Your task to perform on an android device: delete browsing data in the chrome app Image 0: 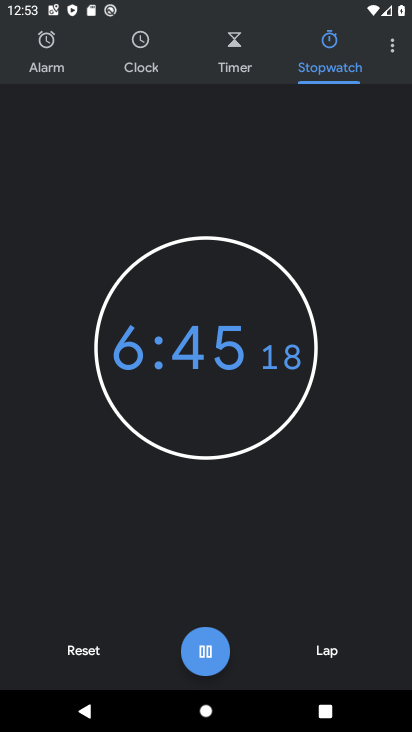
Step 0: press home button
Your task to perform on an android device: delete browsing data in the chrome app Image 1: 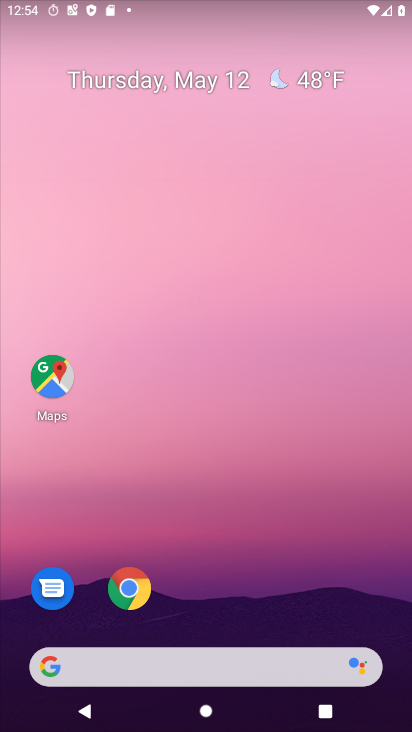
Step 1: click (134, 591)
Your task to perform on an android device: delete browsing data in the chrome app Image 2: 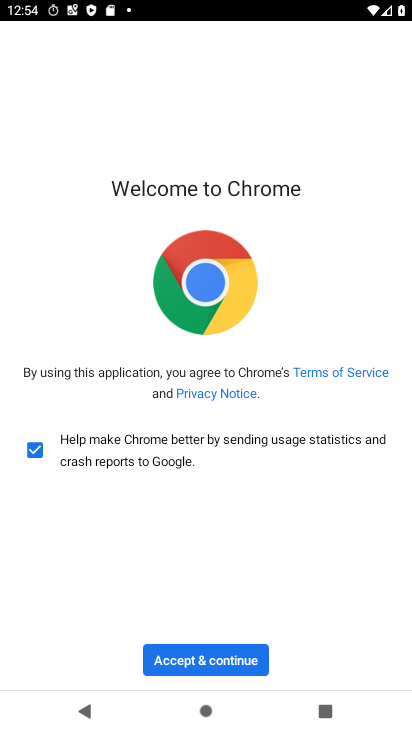
Step 2: click (208, 655)
Your task to perform on an android device: delete browsing data in the chrome app Image 3: 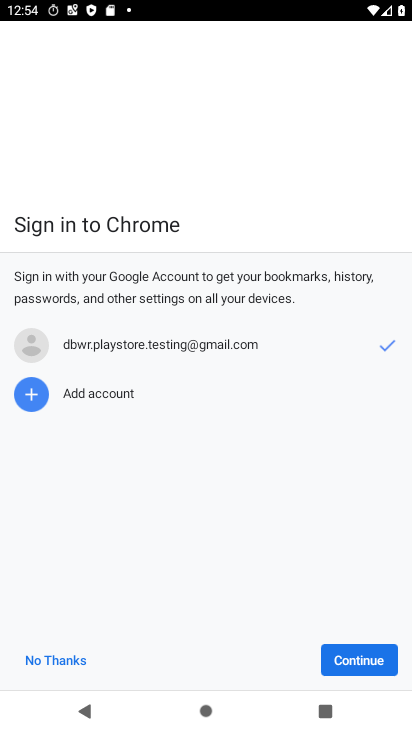
Step 3: click (346, 655)
Your task to perform on an android device: delete browsing data in the chrome app Image 4: 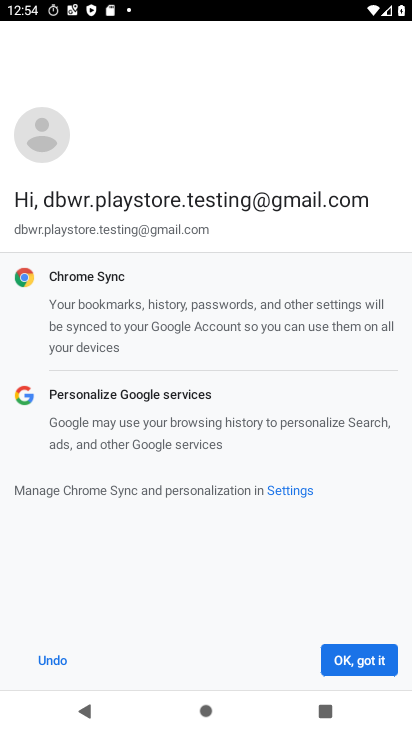
Step 4: click (346, 655)
Your task to perform on an android device: delete browsing data in the chrome app Image 5: 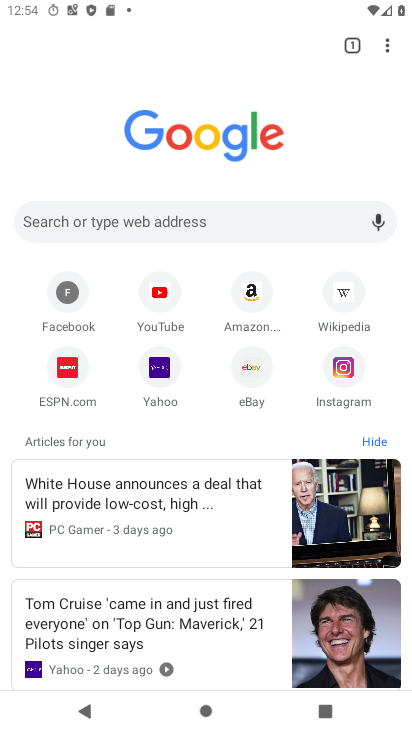
Step 5: click (382, 45)
Your task to perform on an android device: delete browsing data in the chrome app Image 6: 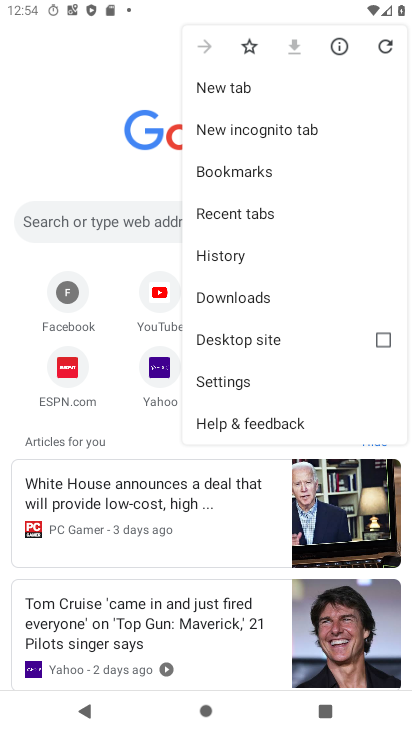
Step 6: click (257, 383)
Your task to perform on an android device: delete browsing data in the chrome app Image 7: 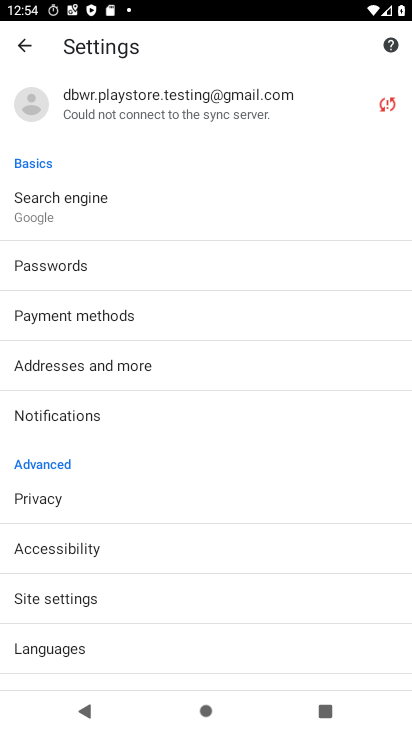
Step 7: click (89, 494)
Your task to perform on an android device: delete browsing data in the chrome app Image 8: 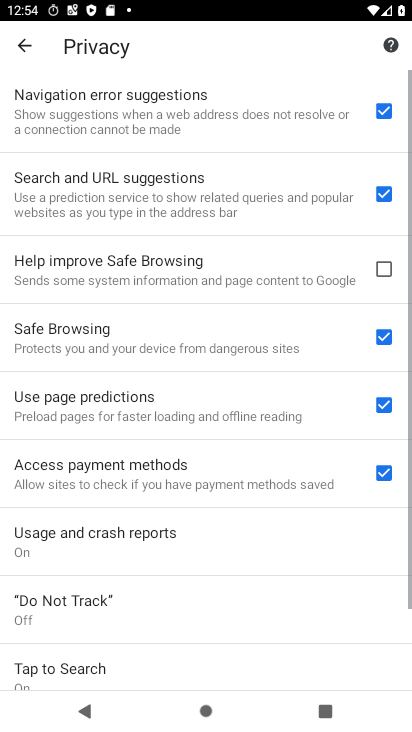
Step 8: drag from (254, 551) to (276, 92)
Your task to perform on an android device: delete browsing data in the chrome app Image 9: 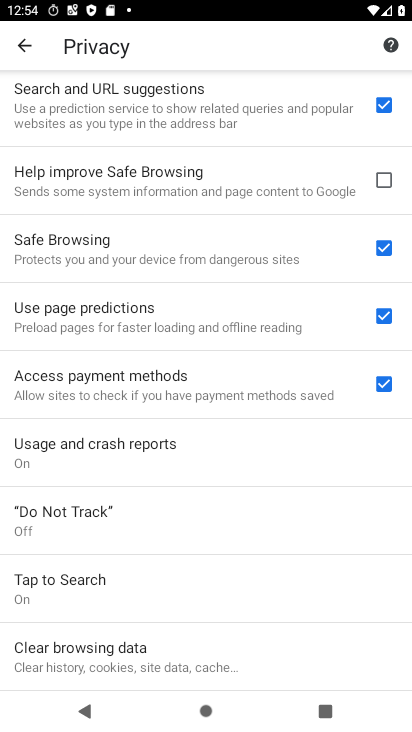
Step 9: click (72, 661)
Your task to perform on an android device: delete browsing data in the chrome app Image 10: 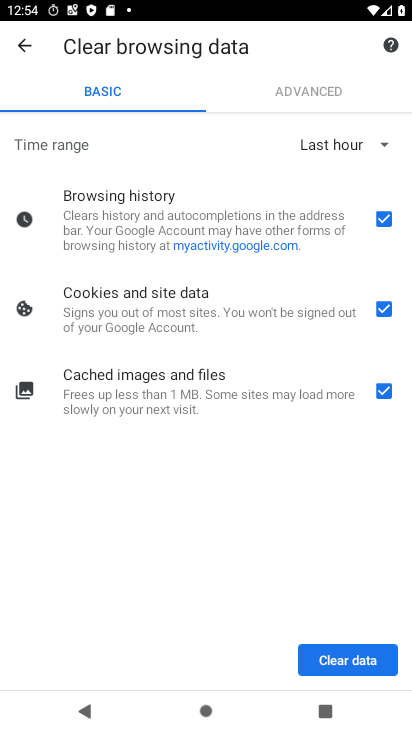
Step 10: click (385, 304)
Your task to perform on an android device: delete browsing data in the chrome app Image 11: 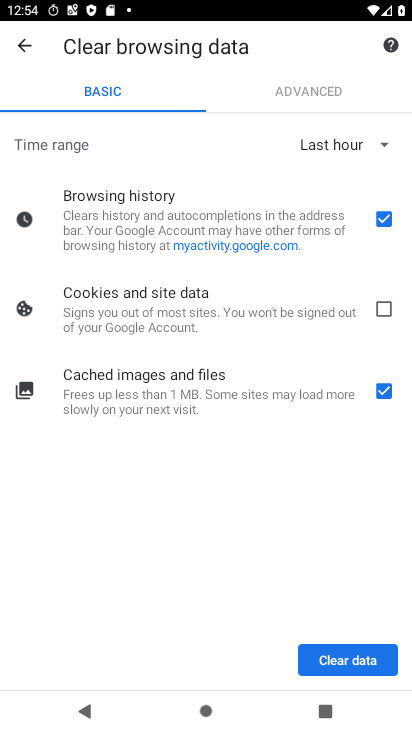
Step 11: click (381, 392)
Your task to perform on an android device: delete browsing data in the chrome app Image 12: 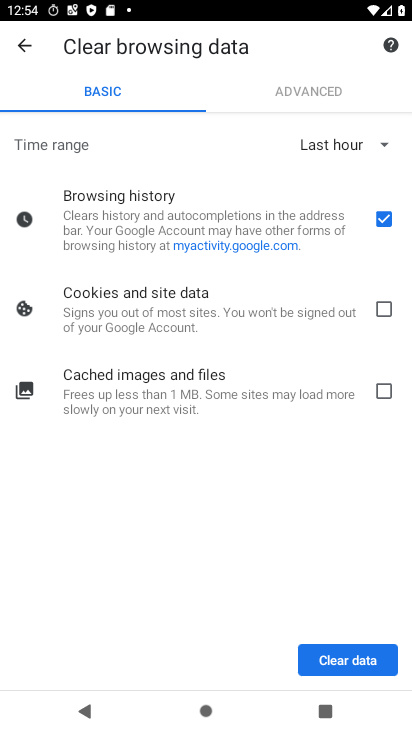
Step 12: click (329, 668)
Your task to perform on an android device: delete browsing data in the chrome app Image 13: 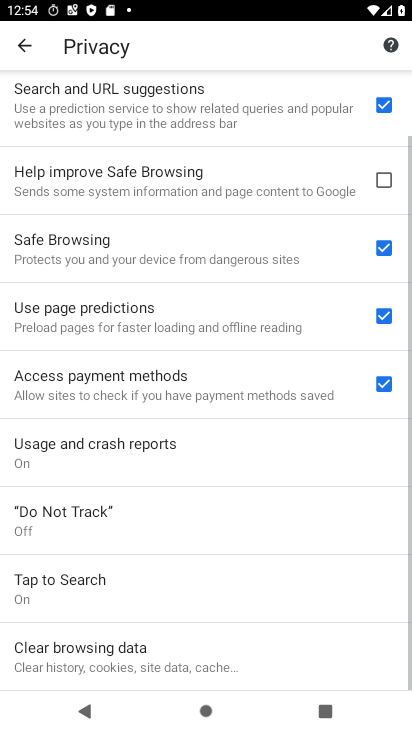
Step 13: task complete